Your task to perform on an android device: clear all cookies in the chrome app Image 0: 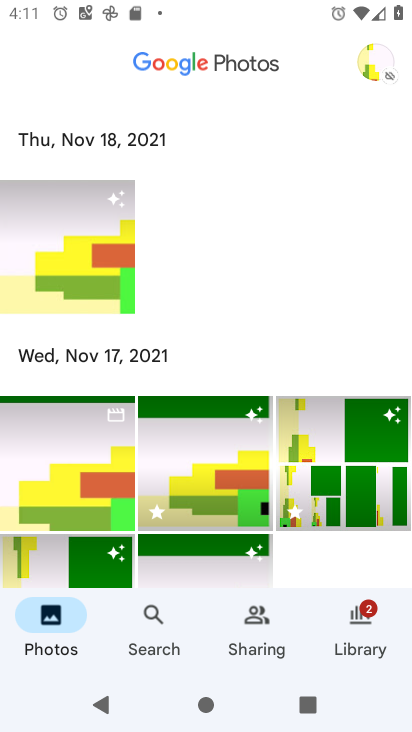
Step 0: press home button
Your task to perform on an android device: clear all cookies in the chrome app Image 1: 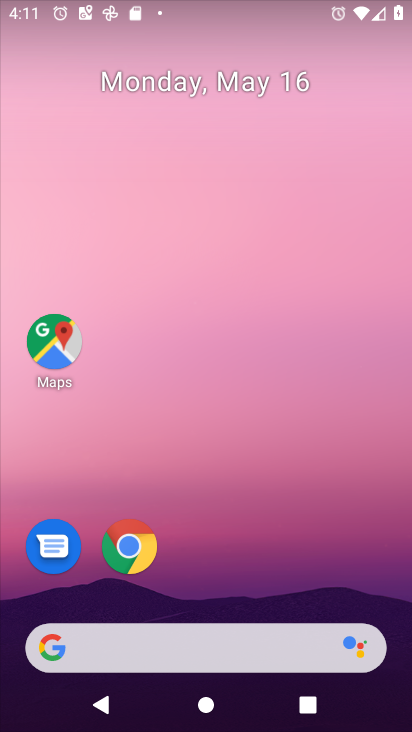
Step 1: drag from (321, 589) to (333, 77)
Your task to perform on an android device: clear all cookies in the chrome app Image 2: 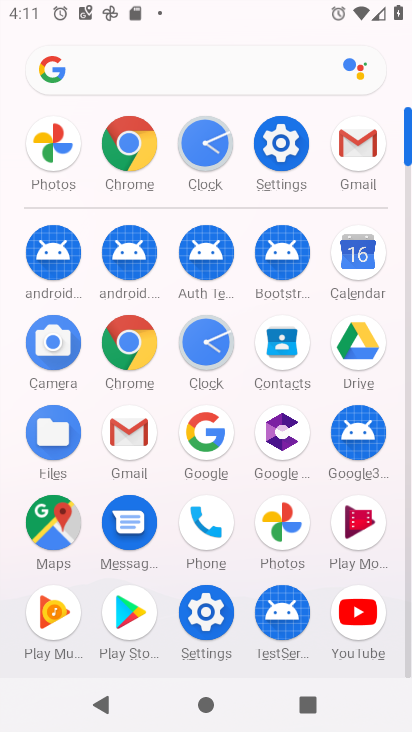
Step 2: click (143, 351)
Your task to perform on an android device: clear all cookies in the chrome app Image 3: 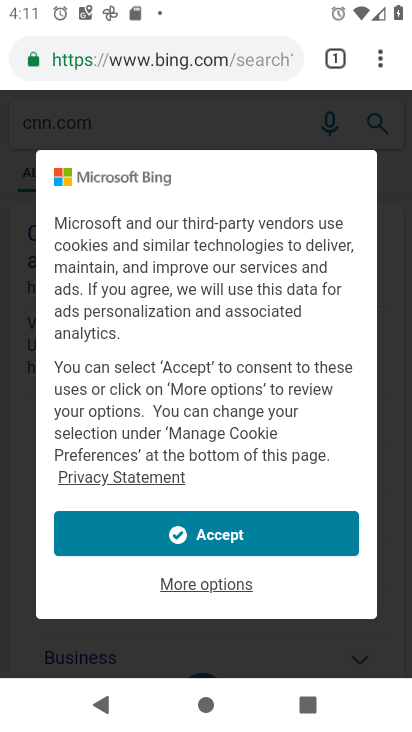
Step 3: click (385, 66)
Your task to perform on an android device: clear all cookies in the chrome app Image 4: 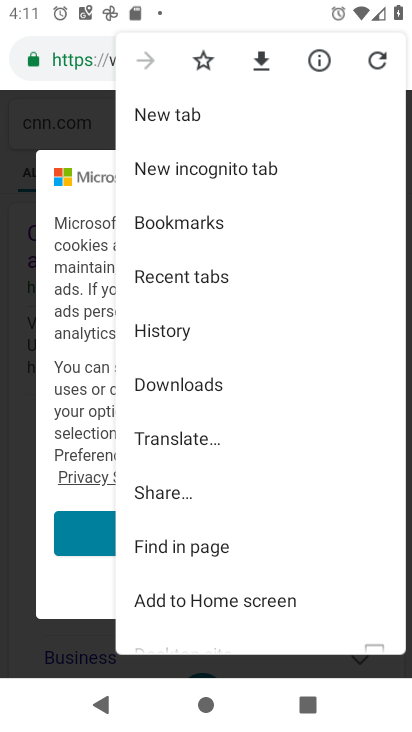
Step 4: drag from (336, 540) to (345, 374)
Your task to perform on an android device: clear all cookies in the chrome app Image 5: 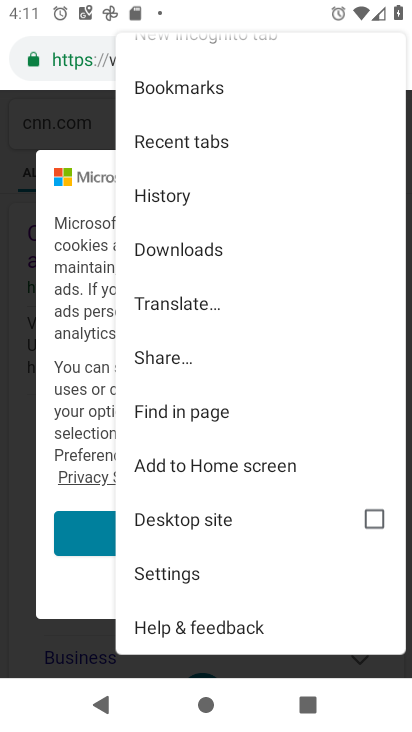
Step 5: drag from (316, 583) to (315, 411)
Your task to perform on an android device: clear all cookies in the chrome app Image 6: 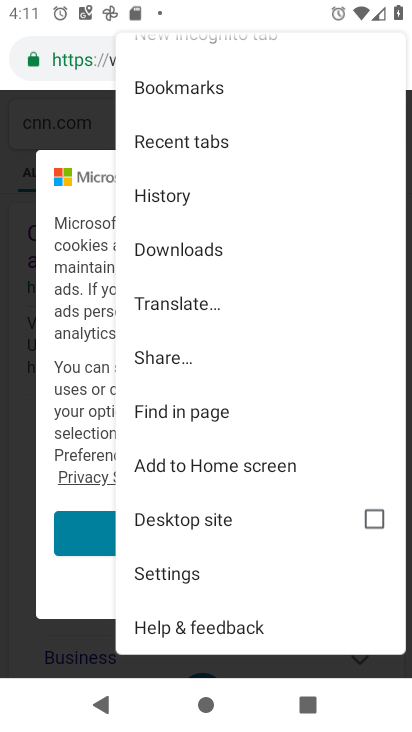
Step 6: click (203, 576)
Your task to perform on an android device: clear all cookies in the chrome app Image 7: 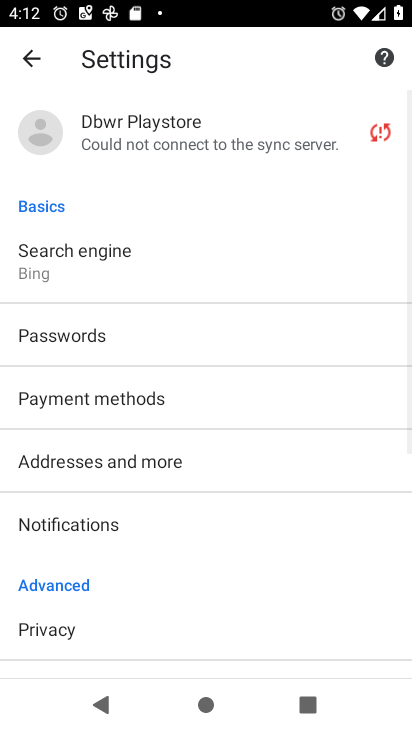
Step 7: drag from (286, 572) to (307, 430)
Your task to perform on an android device: clear all cookies in the chrome app Image 8: 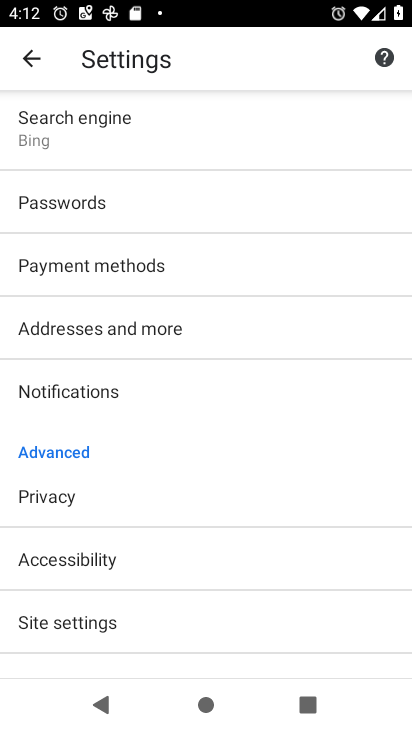
Step 8: drag from (290, 632) to (291, 491)
Your task to perform on an android device: clear all cookies in the chrome app Image 9: 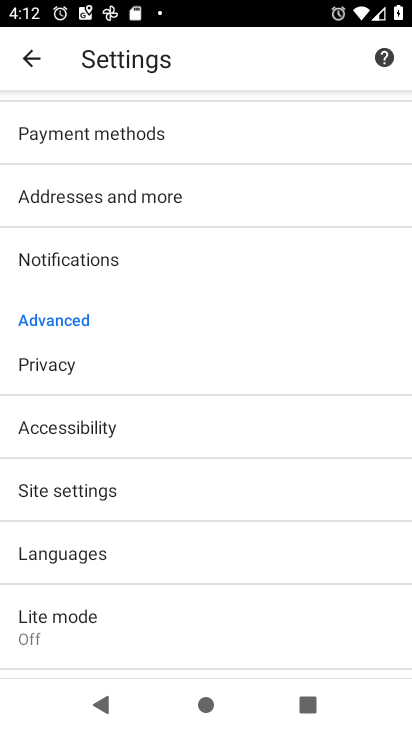
Step 9: drag from (279, 642) to (289, 541)
Your task to perform on an android device: clear all cookies in the chrome app Image 10: 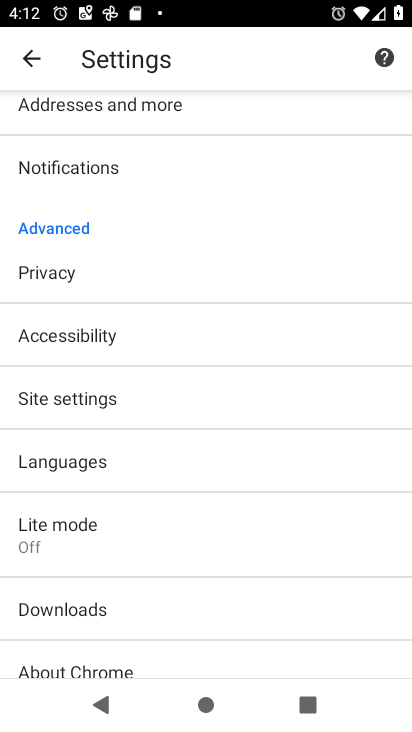
Step 10: drag from (294, 611) to (320, 456)
Your task to perform on an android device: clear all cookies in the chrome app Image 11: 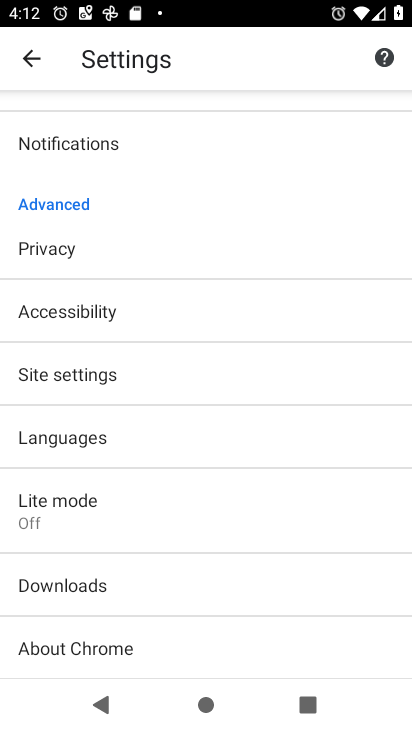
Step 11: drag from (295, 362) to (288, 445)
Your task to perform on an android device: clear all cookies in the chrome app Image 12: 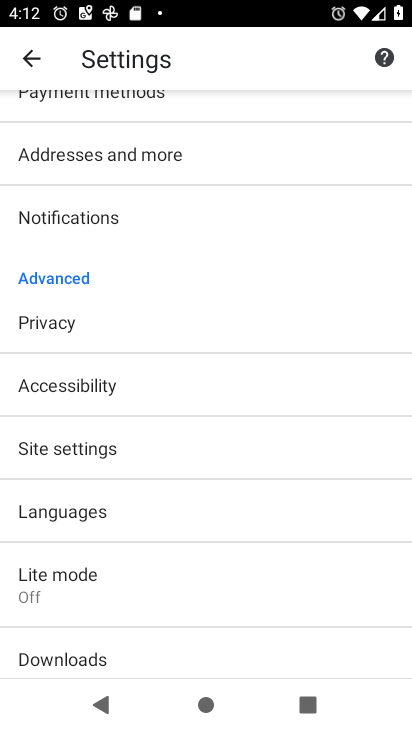
Step 12: click (204, 326)
Your task to perform on an android device: clear all cookies in the chrome app Image 13: 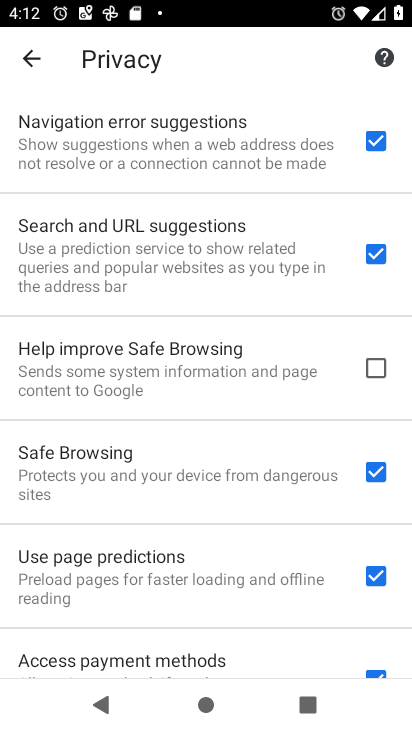
Step 13: drag from (258, 595) to (280, 463)
Your task to perform on an android device: clear all cookies in the chrome app Image 14: 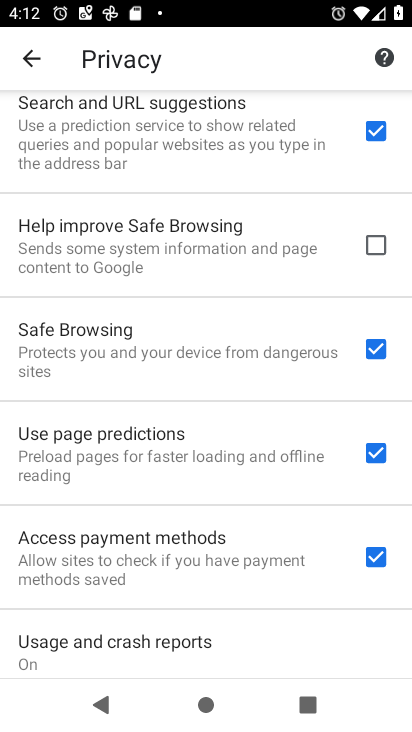
Step 14: drag from (277, 615) to (276, 502)
Your task to perform on an android device: clear all cookies in the chrome app Image 15: 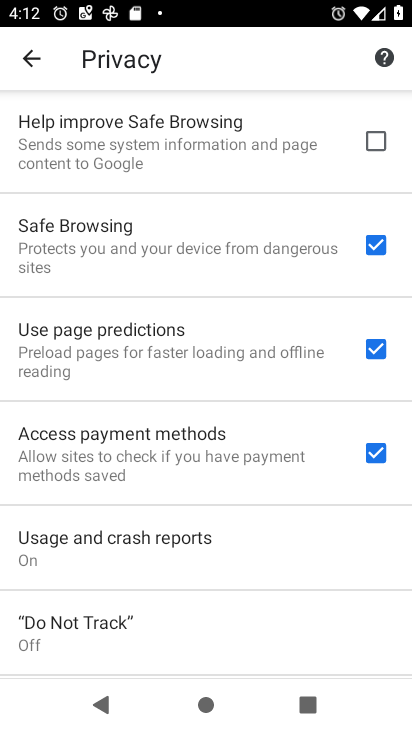
Step 15: drag from (267, 617) to (280, 515)
Your task to perform on an android device: clear all cookies in the chrome app Image 16: 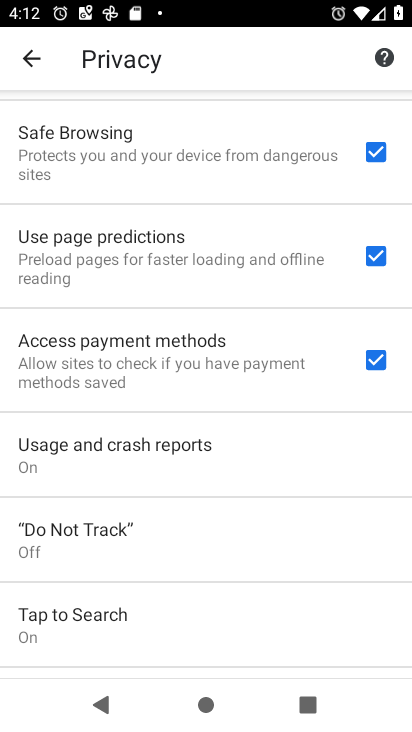
Step 16: drag from (265, 627) to (266, 529)
Your task to perform on an android device: clear all cookies in the chrome app Image 17: 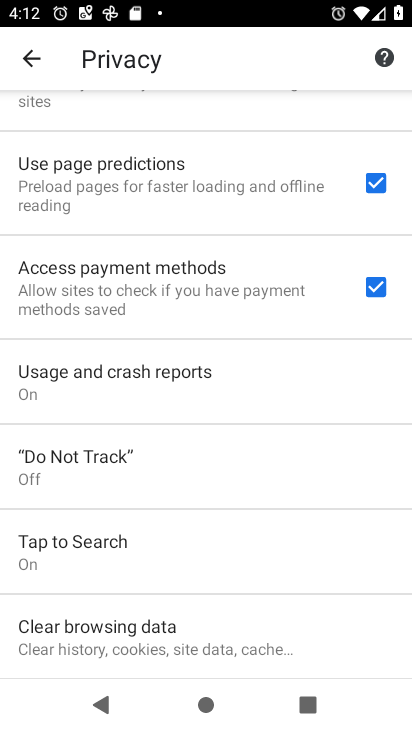
Step 17: click (253, 651)
Your task to perform on an android device: clear all cookies in the chrome app Image 18: 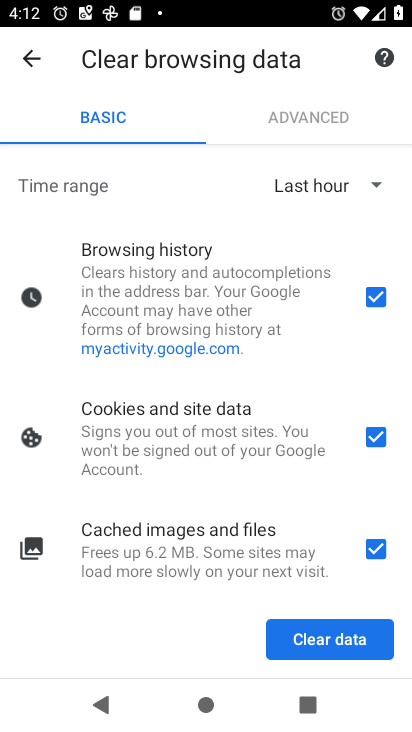
Step 18: click (308, 647)
Your task to perform on an android device: clear all cookies in the chrome app Image 19: 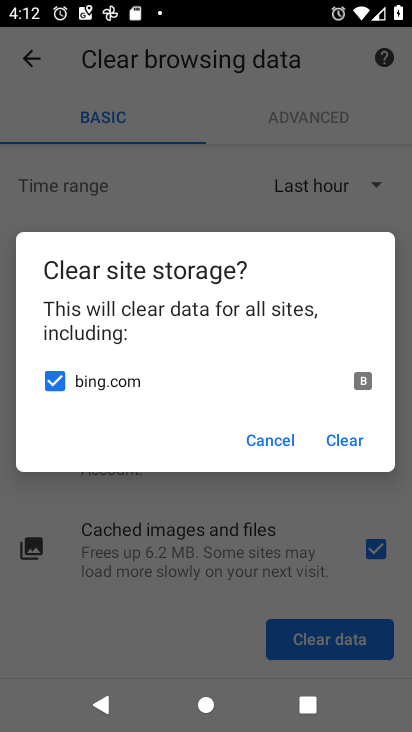
Step 19: click (345, 430)
Your task to perform on an android device: clear all cookies in the chrome app Image 20: 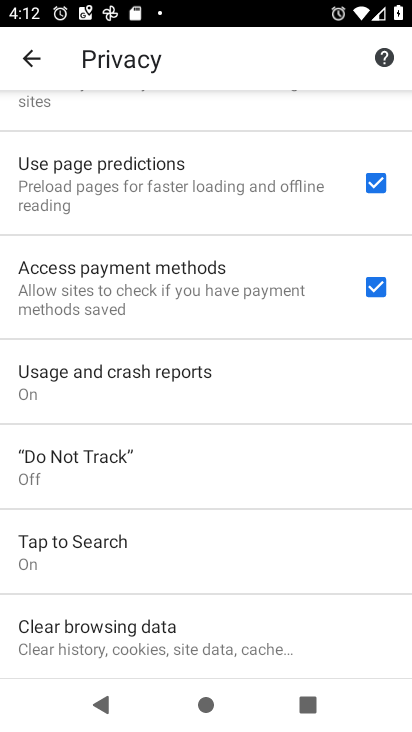
Step 20: task complete